Your task to perform on an android device: When is my next meeting? Image 0: 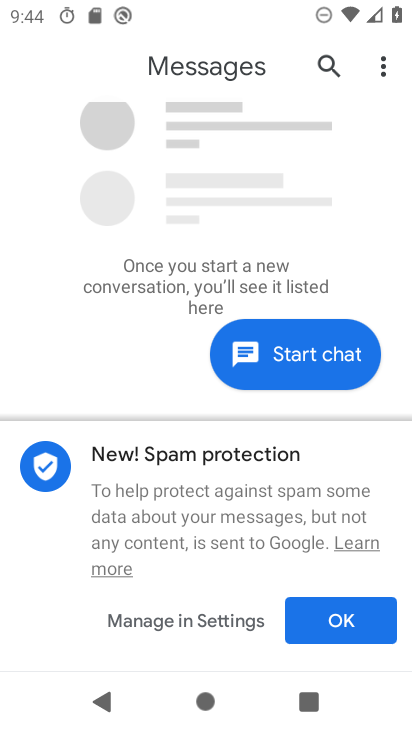
Step 0: press home button
Your task to perform on an android device: When is my next meeting? Image 1: 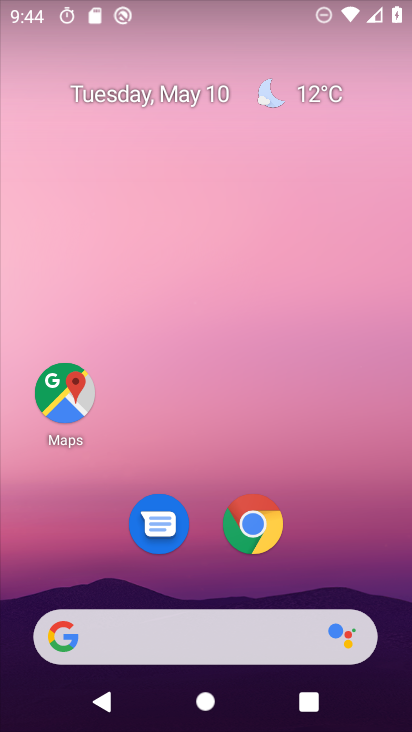
Step 1: drag from (210, 457) to (228, 7)
Your task to perform on an android device: When is my next meeting? Image 2: 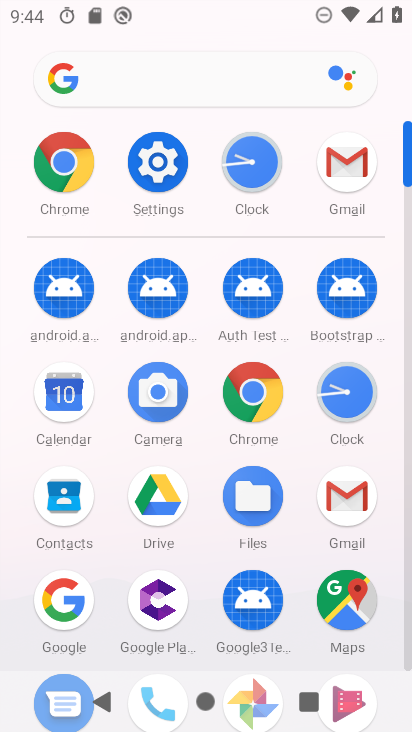
Step 2: click (72, 402)
Your task to perform on an android device: When is my next meeting? Image 3: 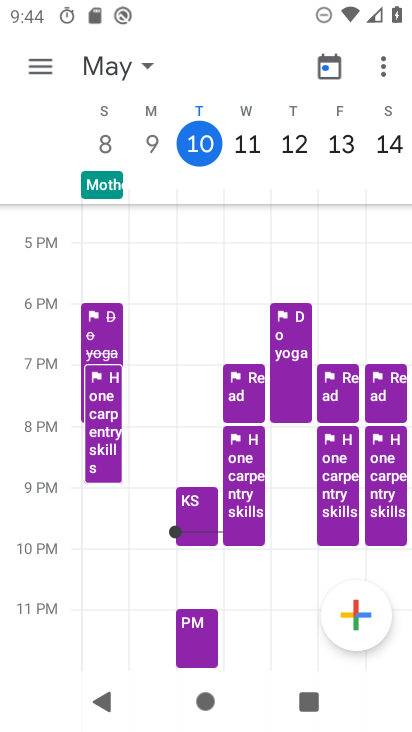
Step 3: click (203, 131)
Your task to perform on an android device: When is my next meeting? Image 4: 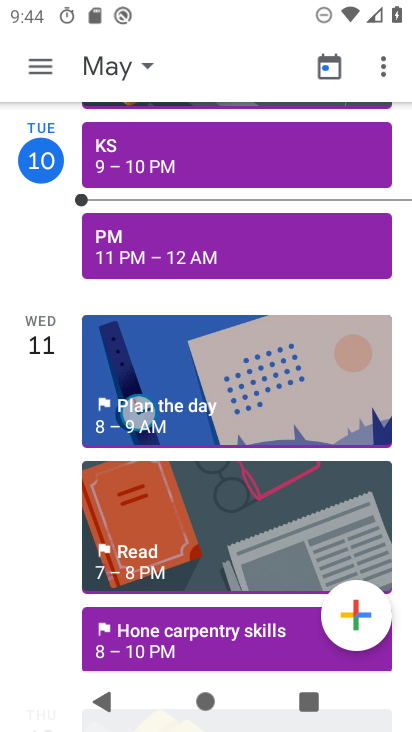
Step 4: click (195, 240)
Your task to perform on an android device: When is my next meeting? Image 5: 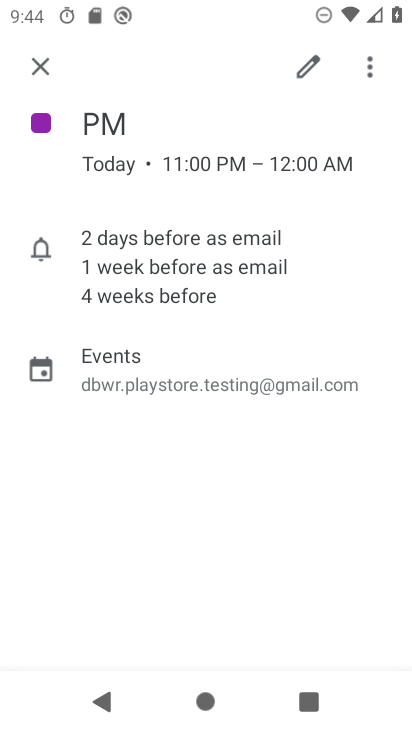
Step 5: task complete